Your task to perform on an android device: turn pop-ups on in chrome Image 0: 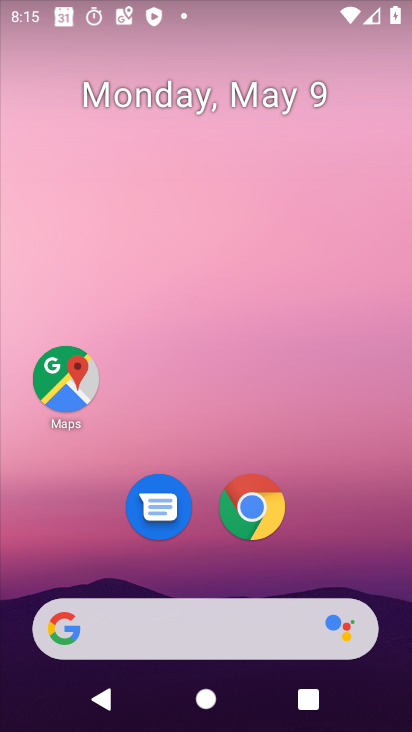
Step 0: drag from (286, 671) to (359, 266)
Your task to perform on an android device: turn pop-ups on in chrome Image 1: 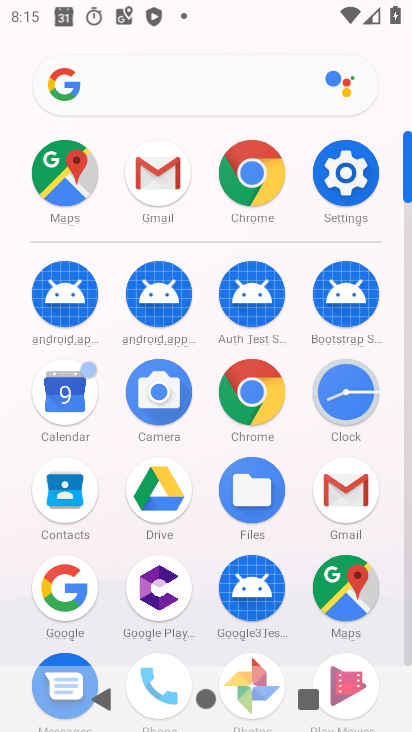
Step 1: click (243, 187)
Your task to perform on an android device: turn pop-ups on in chrome Image 2: 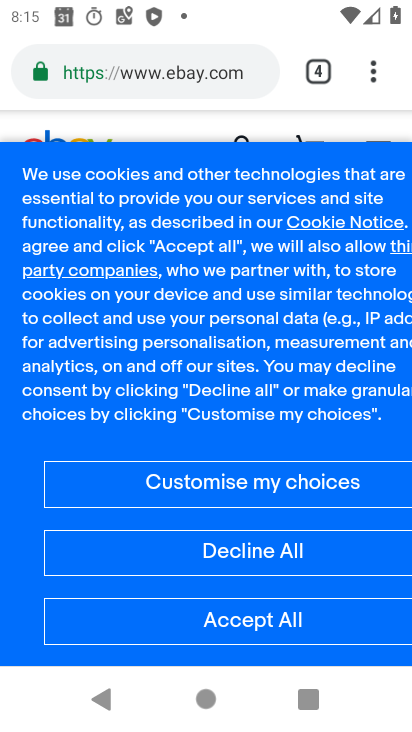
Step 2: click (368, 88)
Your task to perform on an android device: turn pop-ups on in chrome Image 3: 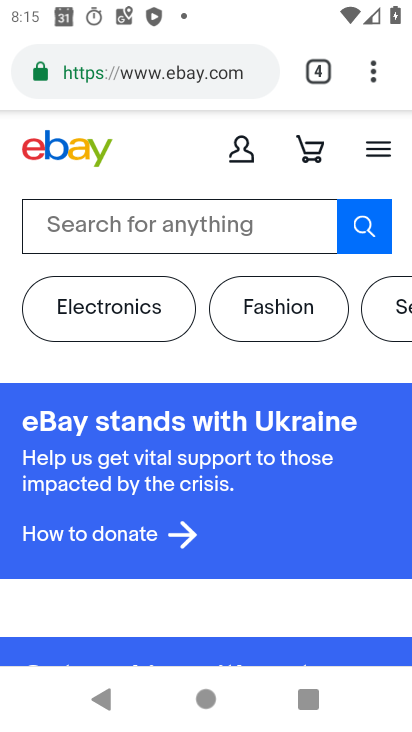
Step 3: click (374, 82)
Your task to perform on an android device: turn pop-ups on in chrome Image 4: 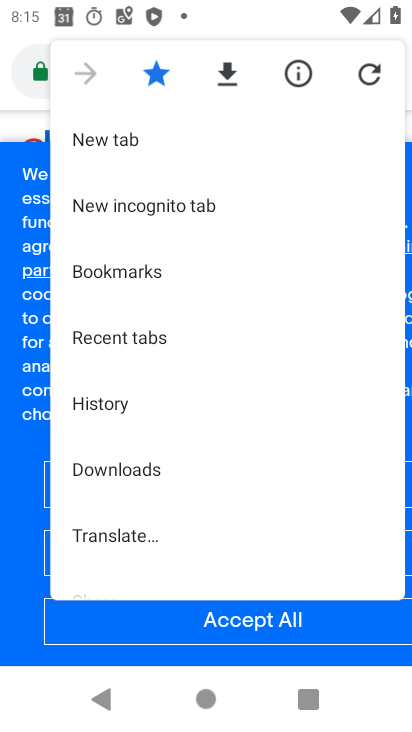
Step 4: drag from (194, 511) to (180, 202)
Your task to perform on an android device: turn pop-ups on in chrome Image 5: 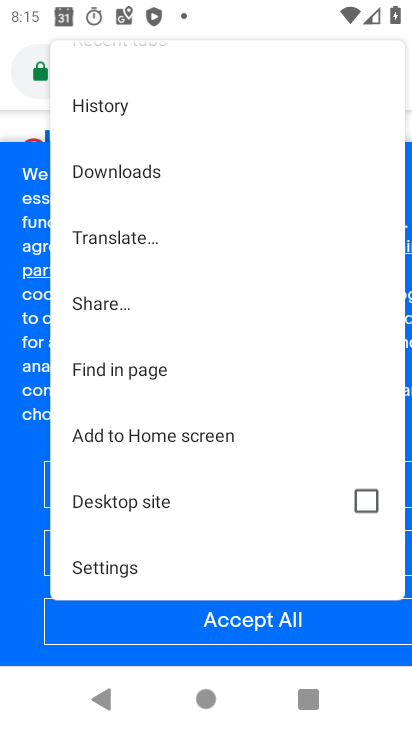
Step 5: click (116, 559)
Your task to perform on an android device: turn pop-ups on in chrome Image 6: 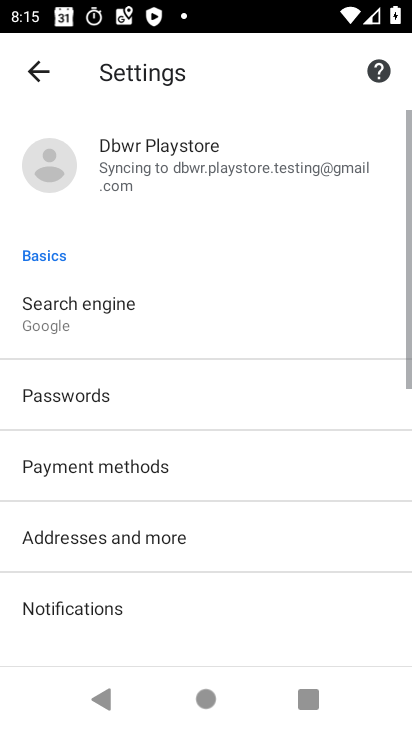
Step 6: drag from (165, 567) to (216, 127)
Your task to perform on an android device: turn pop-ups on in chrome Image 7: 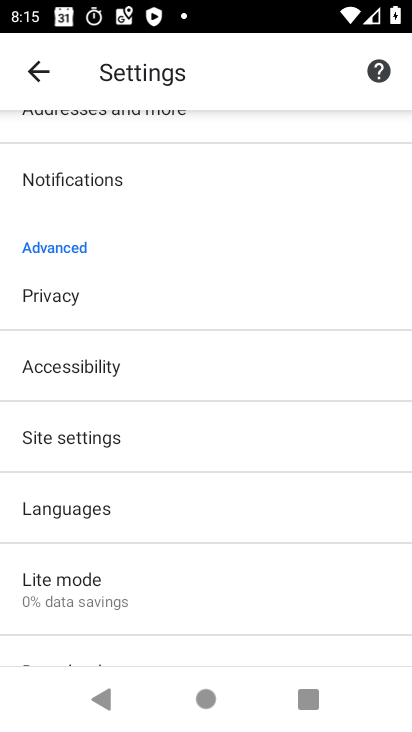
Step 7: click (102, 455)
Your task to perform on an android device: turn pop-ups on in chrome Image 8: 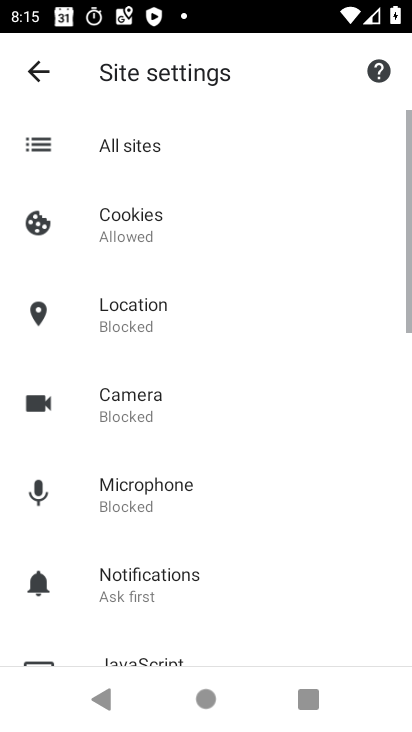
Step 8: drag from (159, 612) to (225, 373)
Your task to perform on an android device: turn pop-ups on in chrome Image 9: 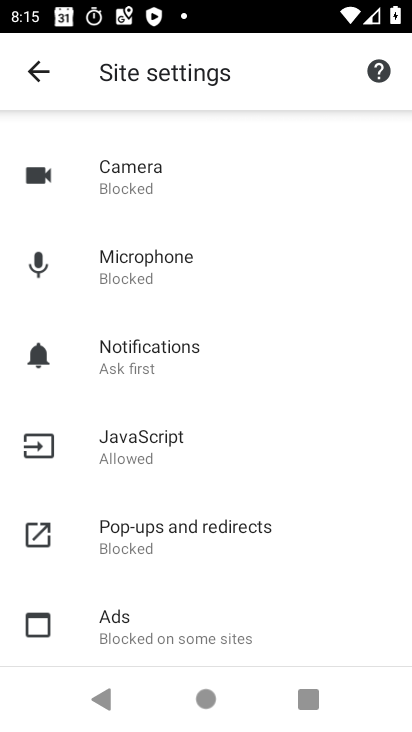
Step 9: click (145, 518)
Your task to perform on an android device: turn pop-ups on in chrome Image 10: 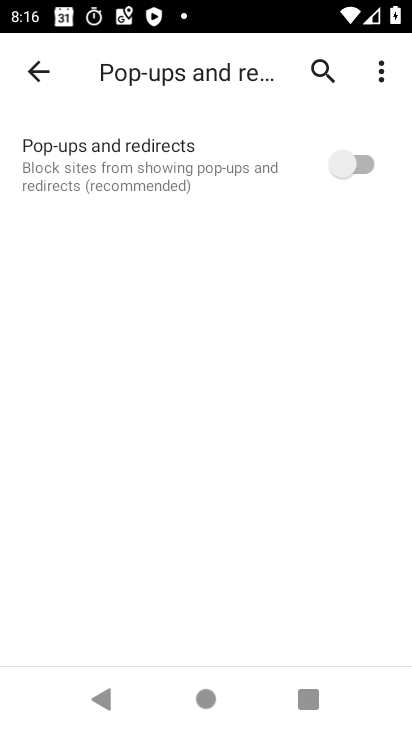
Step 10: click (340, 164)
Your task to perform on an android device: turn pop-ups on in chrome Image 11: 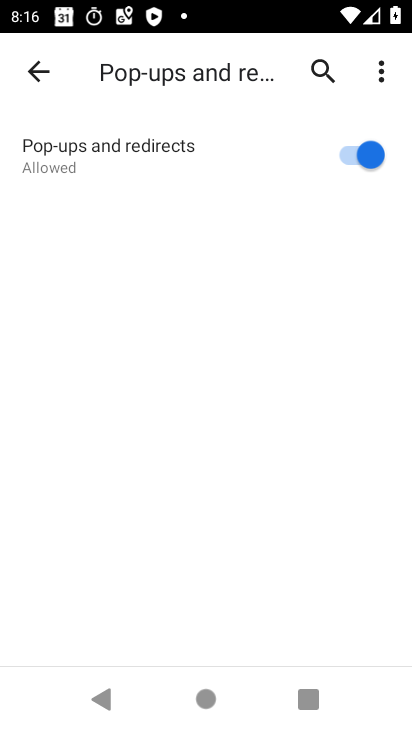
Step 11: task complete